Your task to perform on an android device: Open Wikipedia Image 0: 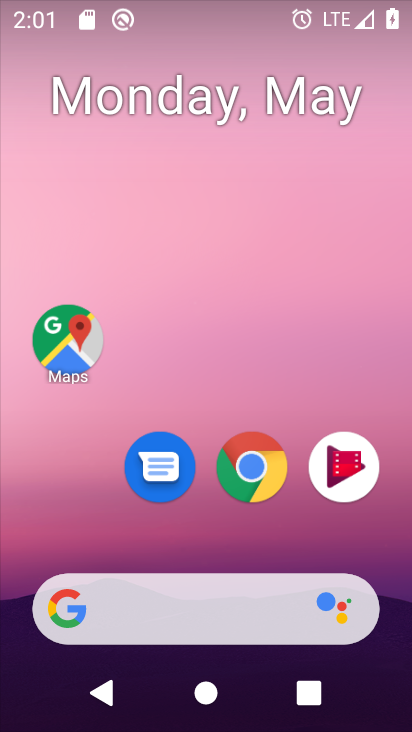
Step 0: drag from (244, 362) to (252, 286)
Your task to perform on an android device: Open Wikipedia Image 1: 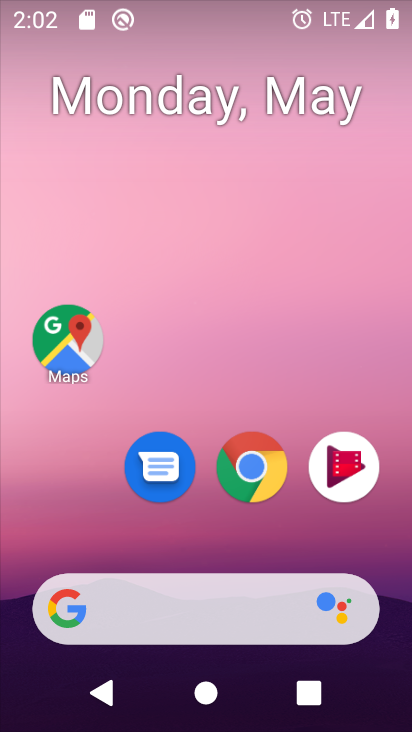
Step 1: drag from (282, 428) to (289, 168)
Your task to perform on an android device: Open Wikipedia Image 2: 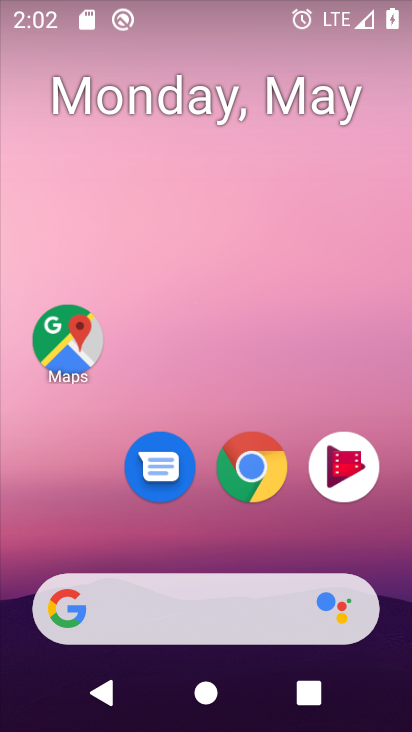
Step 2: drag from (294, 533) to (276, 255)
Your task to perform on an android device: Open Wikipedia Image 3: 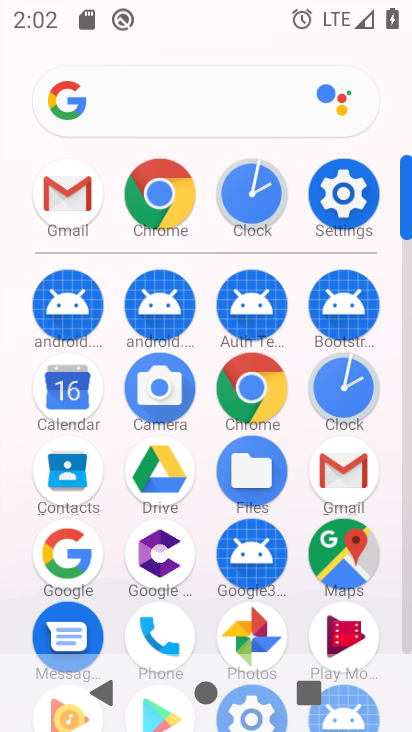
Step 3: click (148, 184)
Your task to perform on an android device: Open Wikipedia Image 4: 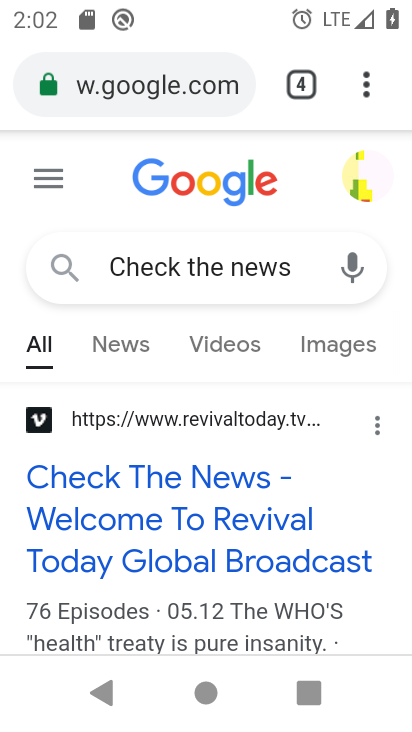
Step 4: click (337, 76)
Your task to perform on an android device: Open Wikipedia Image 5: 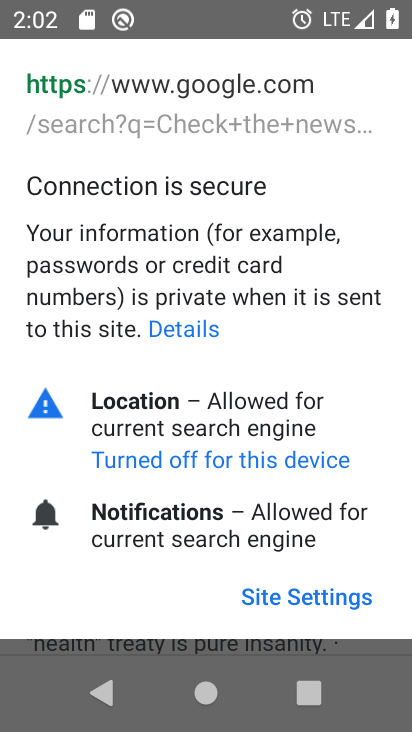
Step 5: press back button
Your task to perform on an android device: Open Wikipedia Image 6: 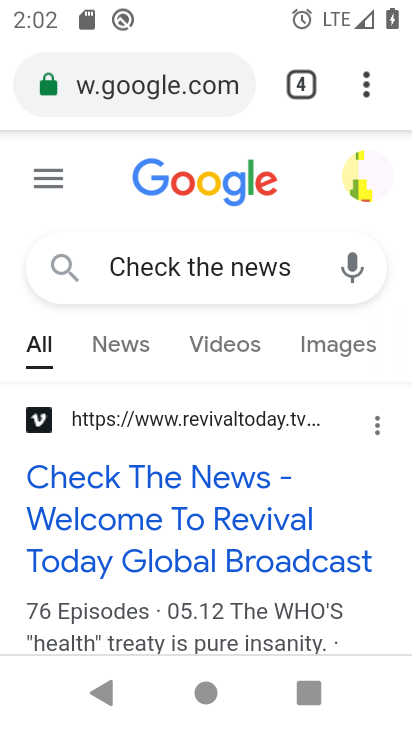
Step 6: click (378, 90)
Your task to perform on an android device: Open Wikipedia Image 7: 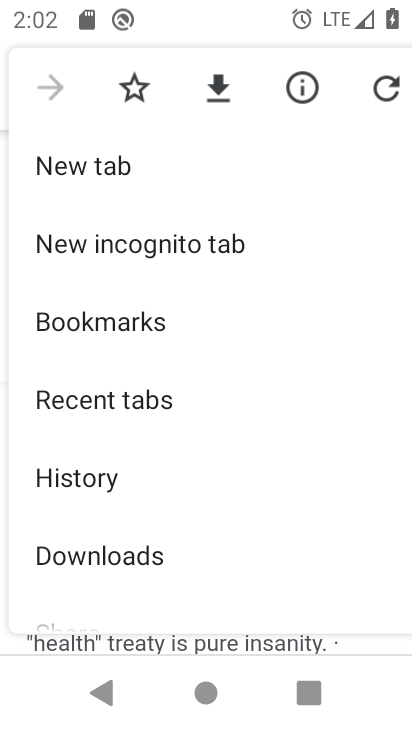
Step 7: click (110, 167)
Your task to perform on an android device: Open Wikipedia Image 8: 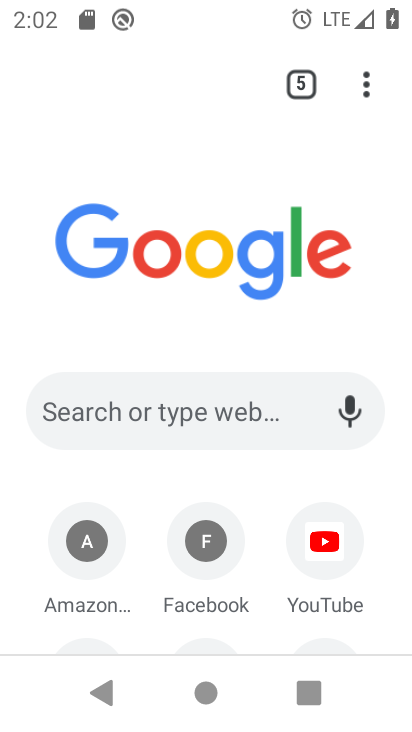
Step 8: drag from (229, 446) to (249, 206)
Your task to perform on an android device: Open Wikipedia Image 9: 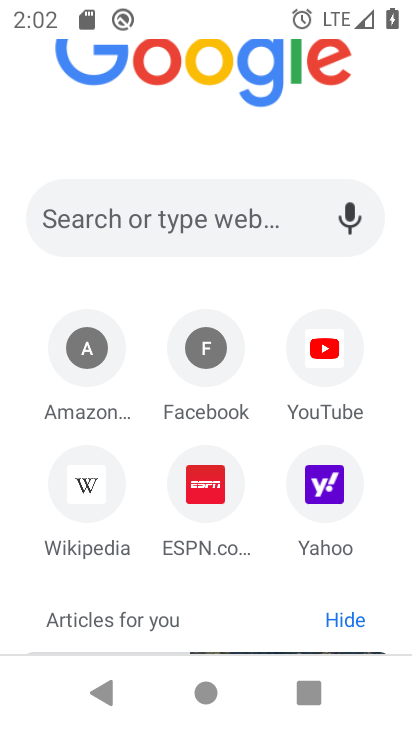
Step 9: click (87, 507)
Your task to perform on an android device: Open Wikipedia Image 10: 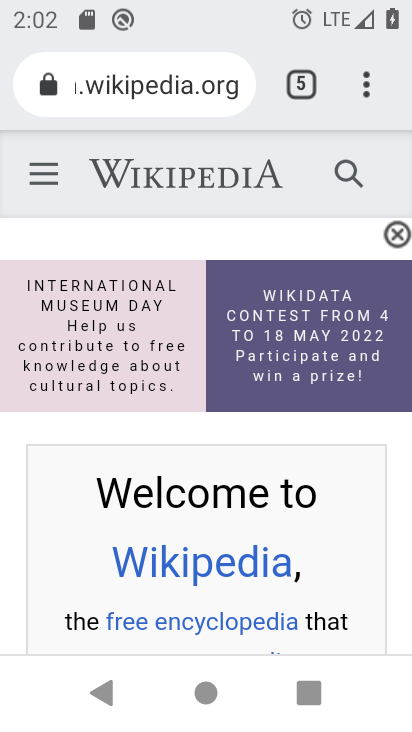
Step 10: task complete